Your task to perform on an android device: turn off location Image 0: 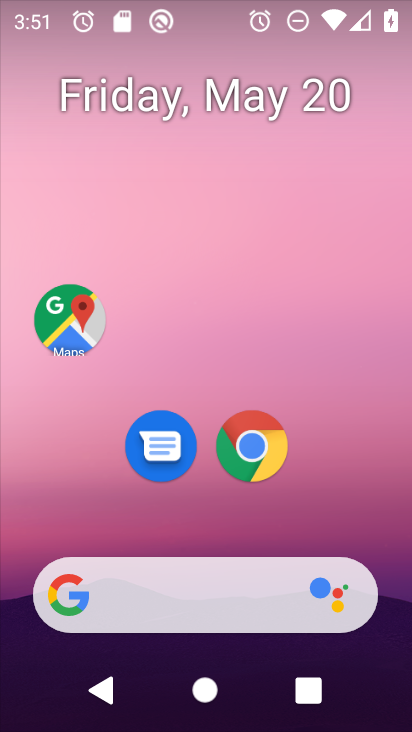
Step 0: drag from (367, 543) to (389, 7)
Your task to perform on an android device: turn off location Image 1: 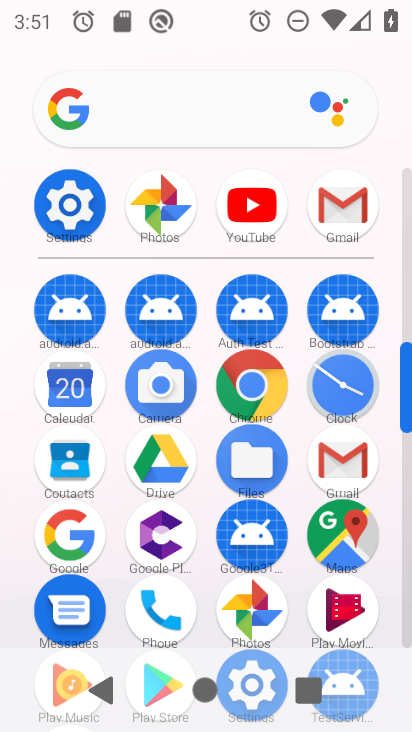
Step 1: click (64, 212)
Your task to perform on an android device: turn off location Image 2: 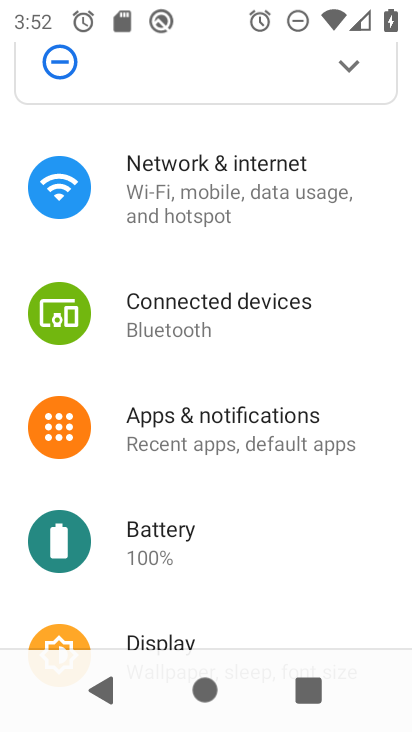
Step 2: drag from (323, 514) to (316, 121)
Your task to perform on an android device: turn off location Image 3: 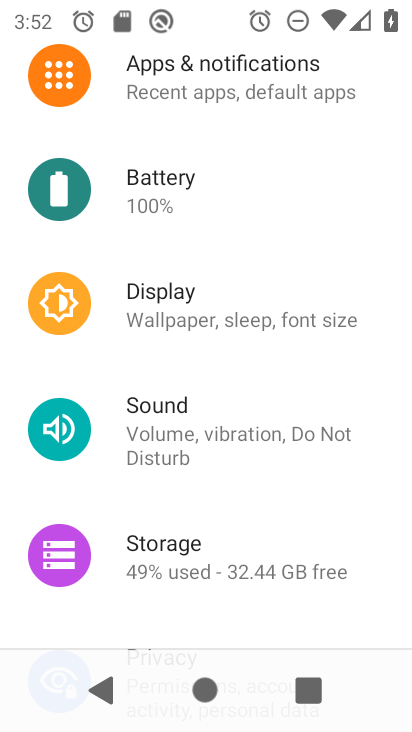
Step 3: drag from (304, 445) to (297, 67)
Your task to perform on an android device: turn off location Image 4: 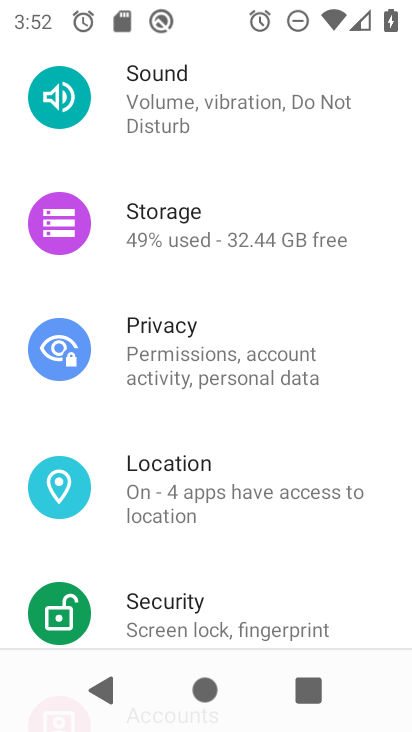
Step 4: click (174, 474)
Your task to perform on an android device: turn off location Image 5: 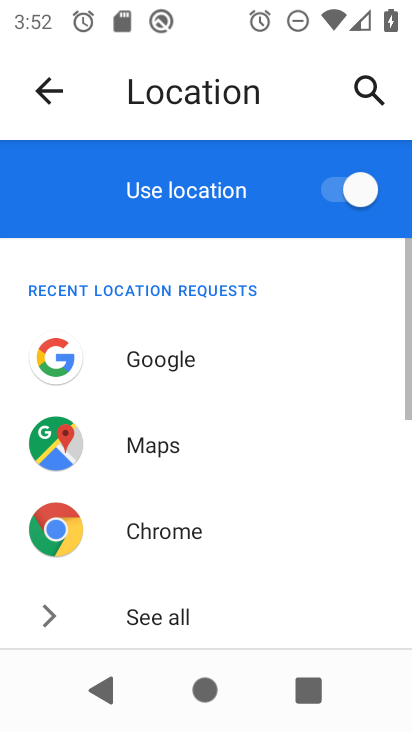
Step 5: click (365, 195)
Your task to perform on an android device: turn off location Image 6: 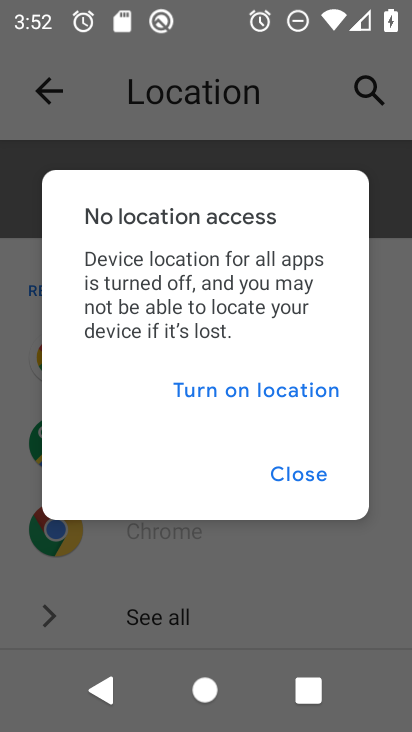
Step 6: click (312, 472)
Your task to perform on an android device: turn off location Image 7: 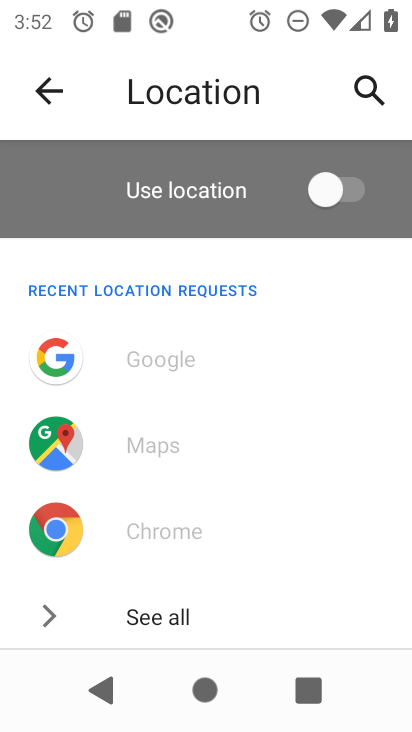
Step 7: task complete